Your task to perform on an android device: What is the recent news? Image 0: 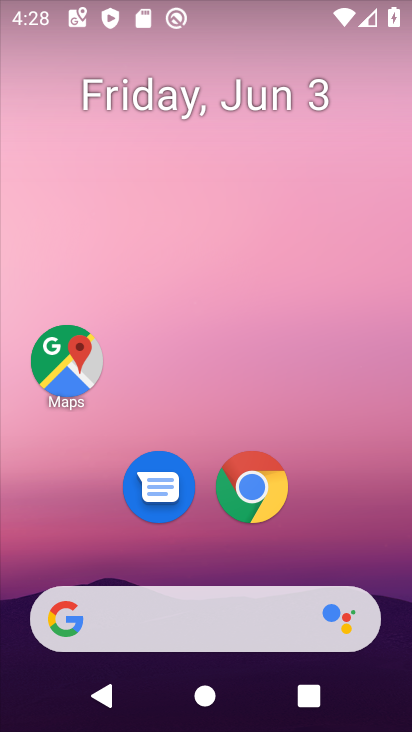
Step 0: click (343, 23)
Your task to perform on an android device: What is the recent news? Image 1: 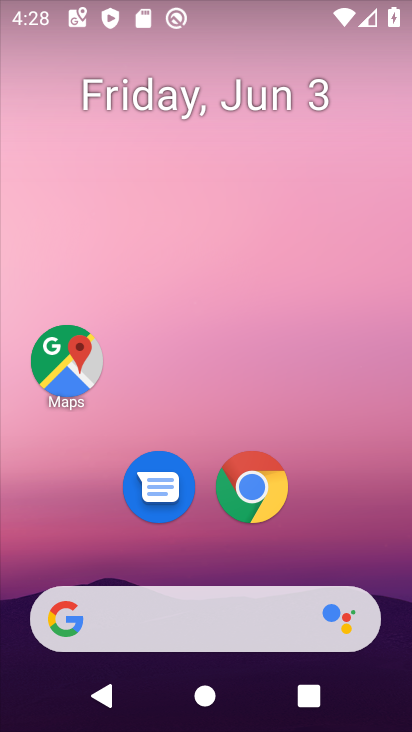
Step 1: drag from (210, 550) to (298, 81)
Your task to perform on an android device: What is the recent news? Image 2: 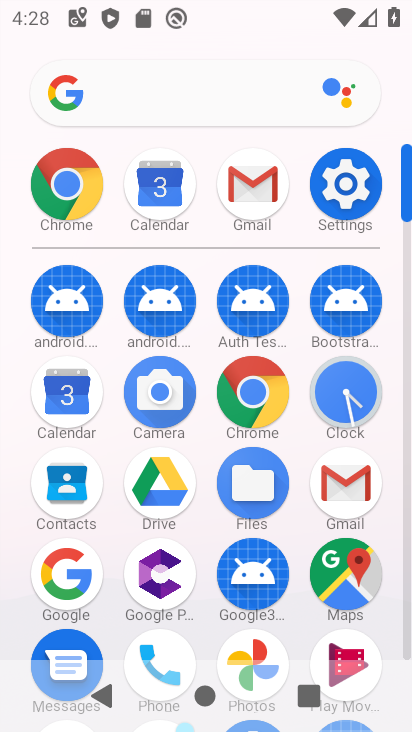
Step 2: click (208, 91)
Your task to perform on an android device: What is the recent news? Image 3: 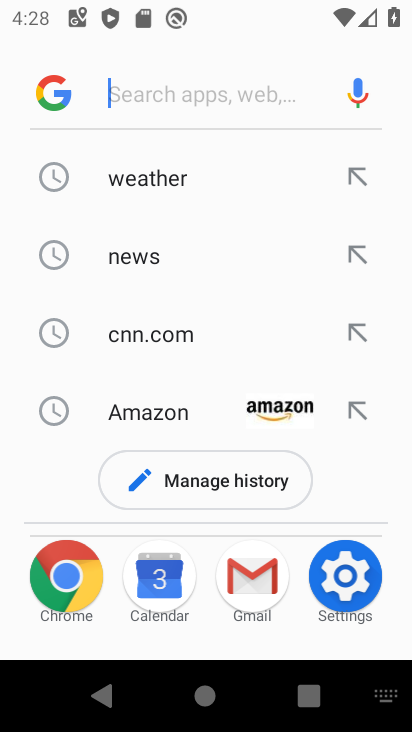
Step 3: type "recent news?"
Your task to perform on an android device: What is the recent news? Image 4: 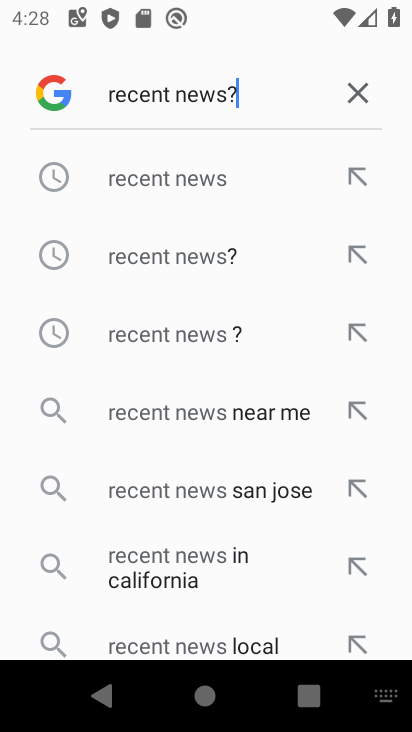
Step 4: type ""
Your task to perform on an android device: What is the recent news? Image 5: 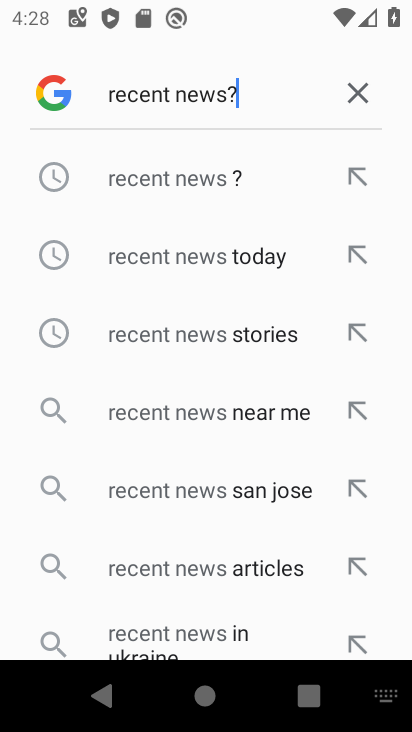
Step 5: click (190, 192)
Your task to perform on an android device: What is the recent news? Image 6: 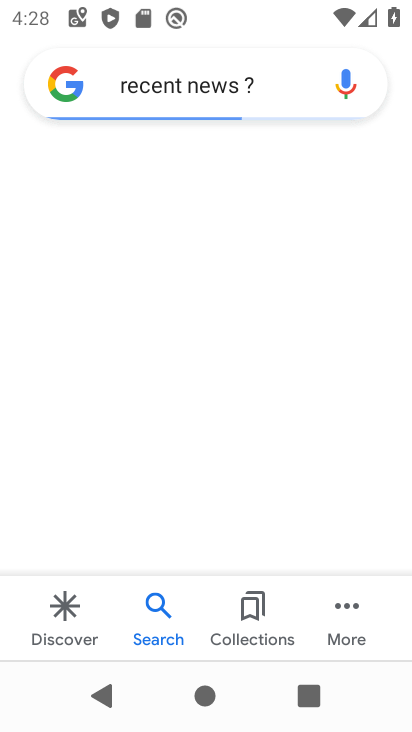
Step 6: task complete